Your task to perform on an android device: find which apps use the phone's location Image 0: 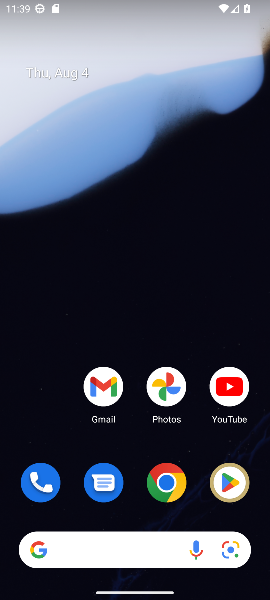
Step 0: drag from (131, 439) to (133, 119)
Your task to perform on an android device: find which apps use the phone's location Image 1: 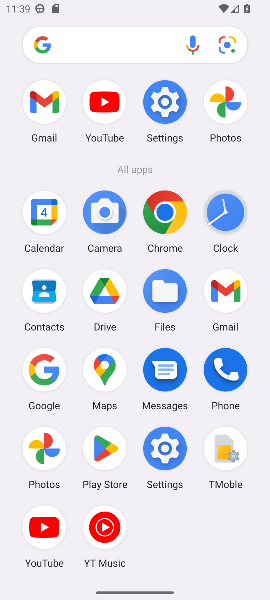
Step 1: click (167, 104)
Your task to perform on an android device: find which apps use the phone's location Image 2: 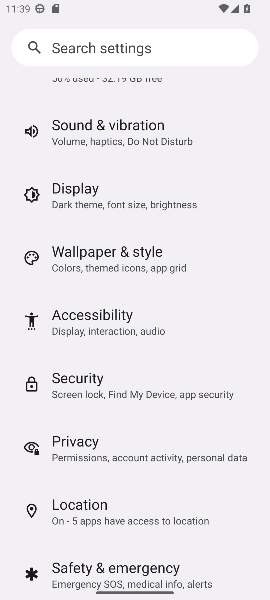
Step 2: click (134, 502)
Your task to perform on an android device: find which apps use the phone's location Image 3: 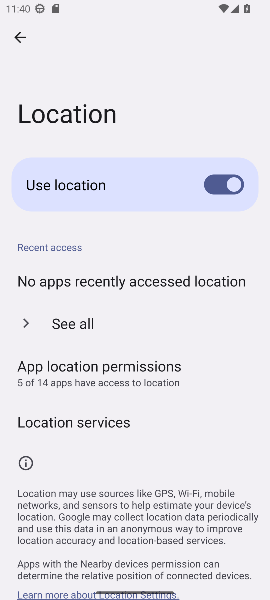
Step 3: click (108, 381)
Your task to perform on an android device: find which apps use the phone's location Image 4: 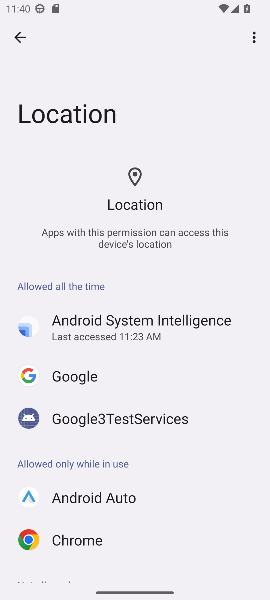
Step 4: task complete